Your task to perform on an android device: Open Maps and search for coffee Image 0: 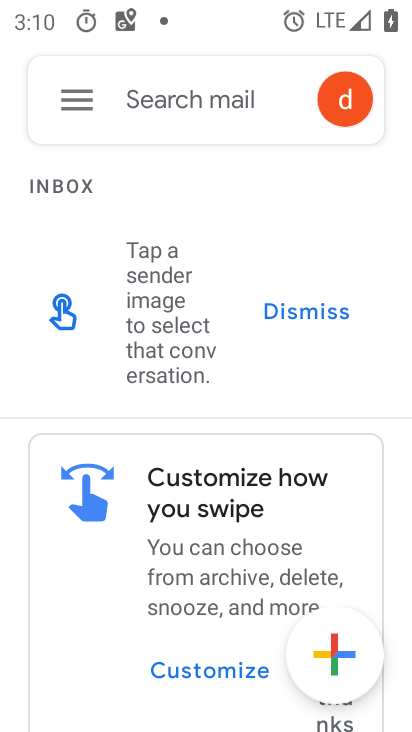
Step 0: press home button
Your task to perform on an android device: Open Maps and search for coffee Image 1: 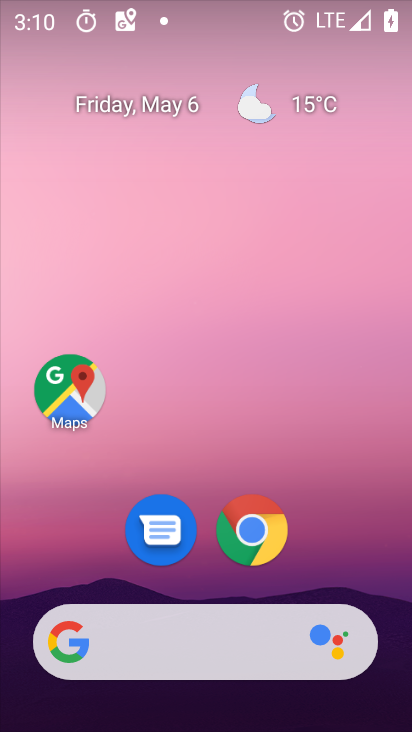
Step 1: click (66, 395)
Your task to perform on an android device: Open Maps and search for coffee Image 2: 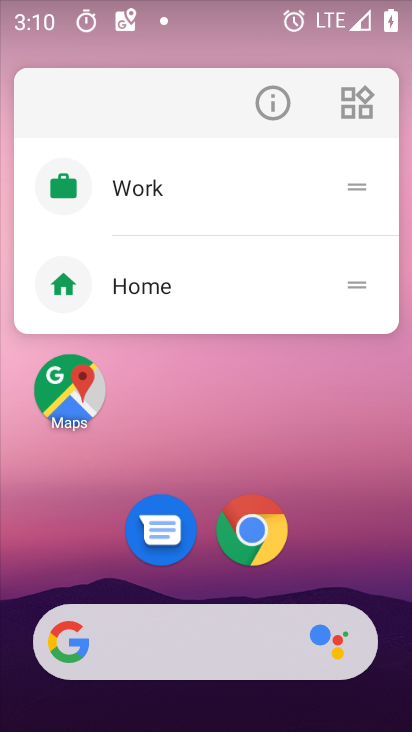
Step 2: click (62, 392)
Your task to perform on an android device: Open Maps and search for coffee Image 3: 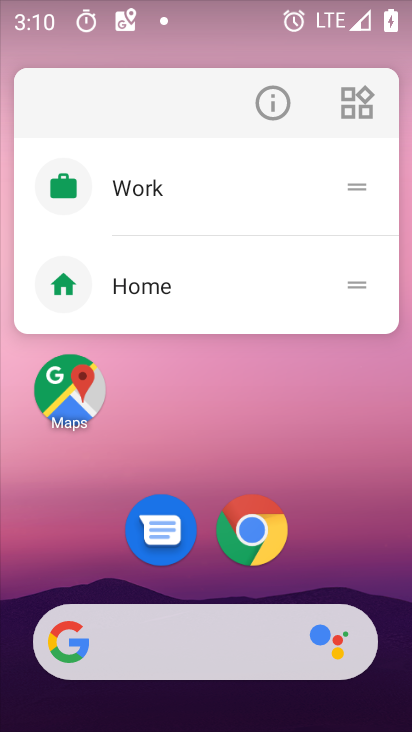
Step 3: click (81, 352)
Your task to perform on an android device: Open Maps and search for coffee Image 4: 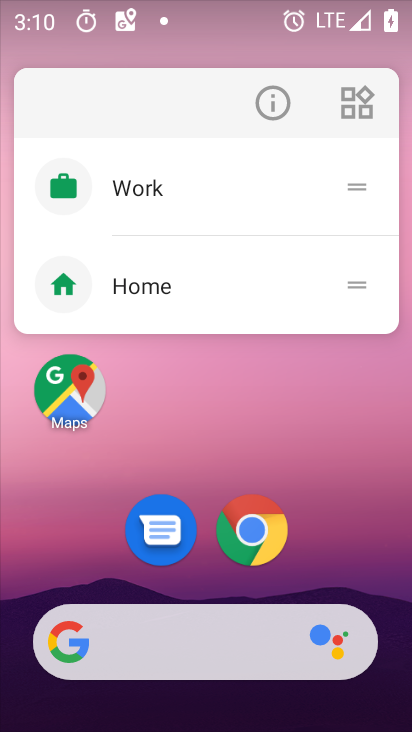
Step 4: click (76, 399)
Your task to perform on an android device: Open Maps and search for coffee Image 5: 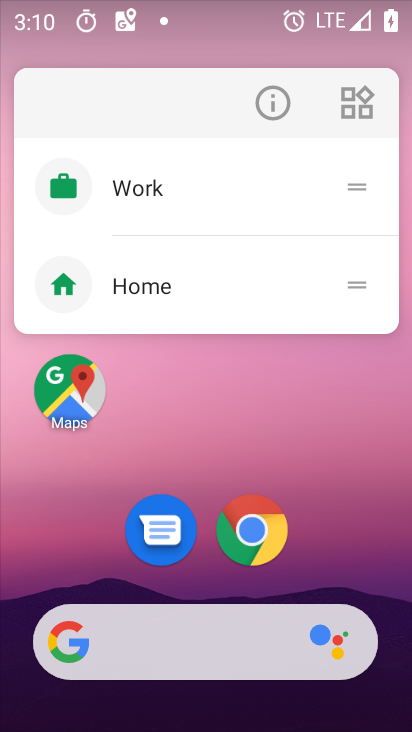
Step 5: click (71, 398)
Your task to perform on an android device: Open Maps and search for coffee Image 6: 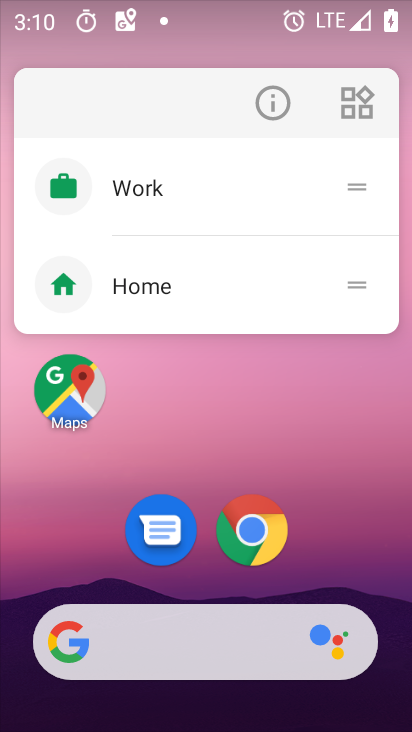
Step 6: click (65, 401)
Your task to perform on an android device: Open Maps and search for coffee Image 7: 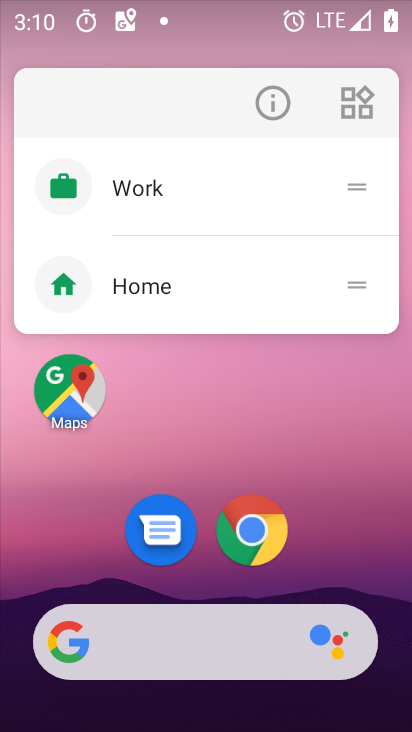
Step 7: click (64, 400)
Your task to perform on an android device: Open Maps and search for coffee Image 8: 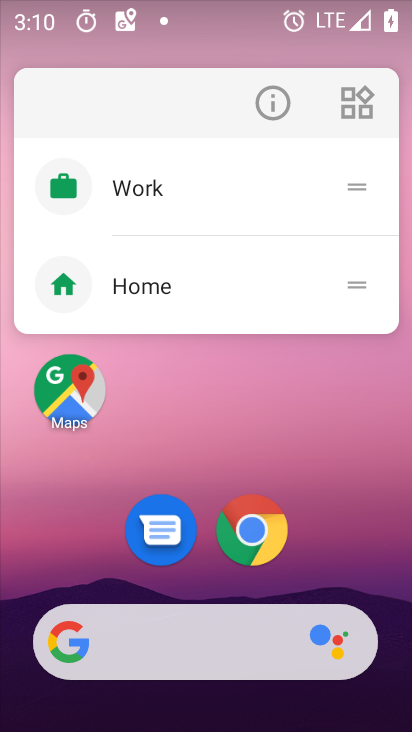
Step 8: click (64, 396)
Your task to perform on an android device: Open Maps and search for coffee Image 9: 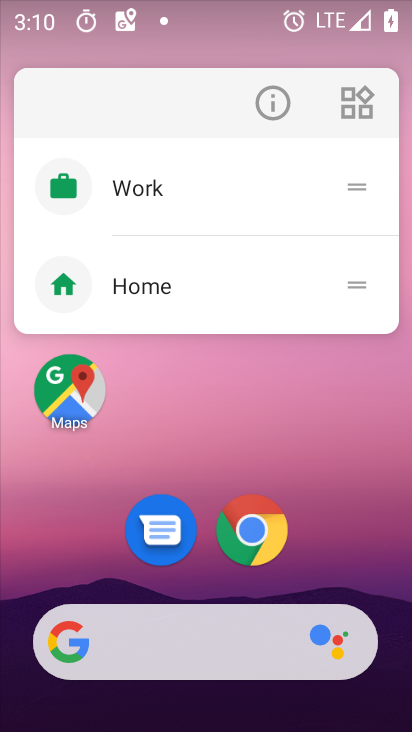
Step 9: click (63, 398)
Your task to perform on an android device: Open Maps and search for coffee Image 10: 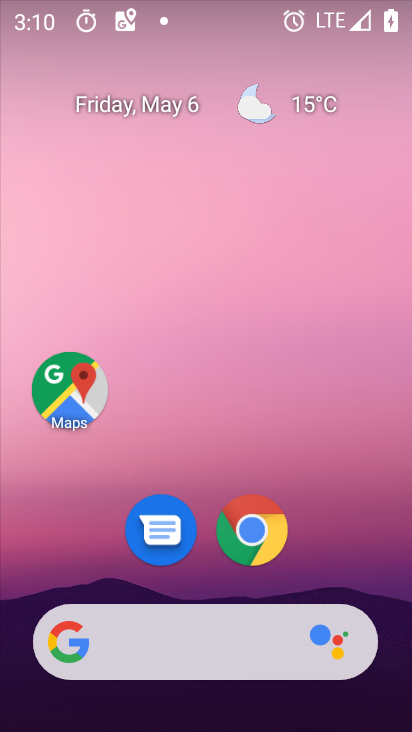
Step 10: click (62, 399)
Your task to perform on an android device: Open Maps and search for coffee Image 11: 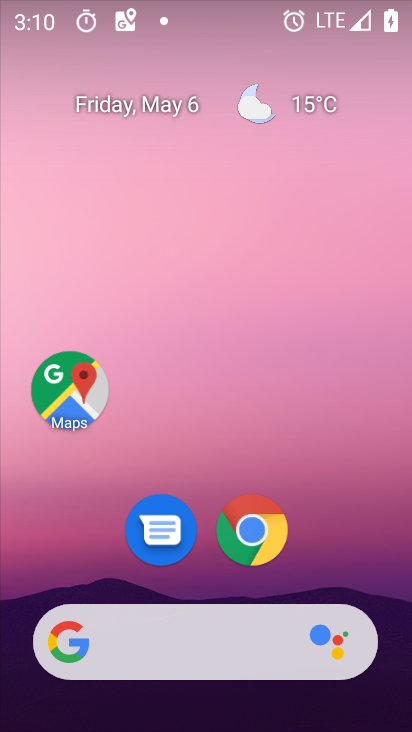
Step 11: click (60, 400)
Your task to perform on an android device: Open Maps and search for coffee Image 12: 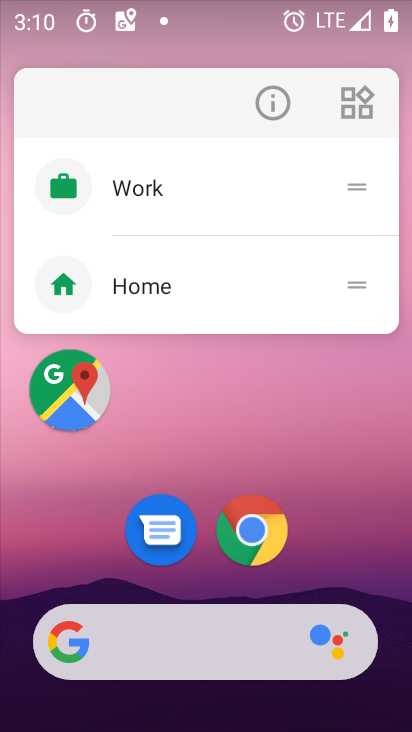
Step 12: click (59, 400)
Your task to perform on an android device: Open Maps and search for coffee Image 13: 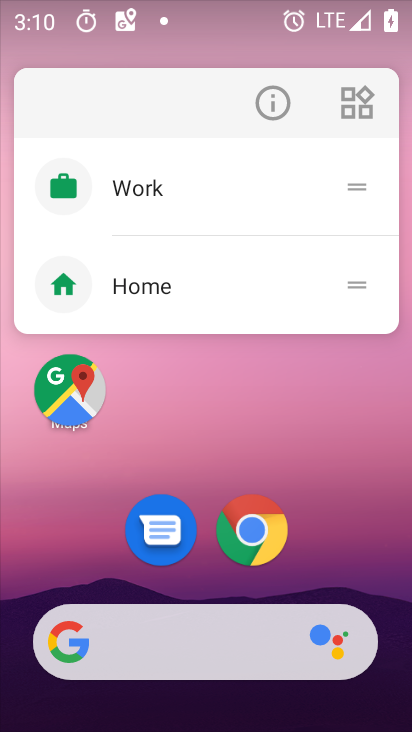
Step 13: click (59, 401)
Your task to perform on an android device: Open Maps and search for coffee Image 14: 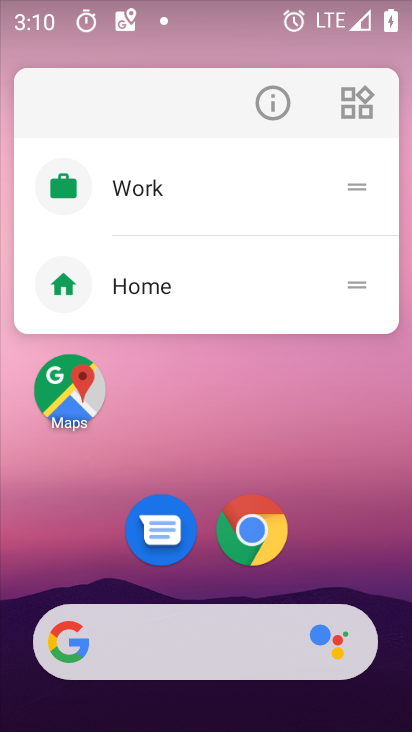
Step 14: click (58, 399)
Your task to perform on an android device: Open Maps and search for coffee Image 15: 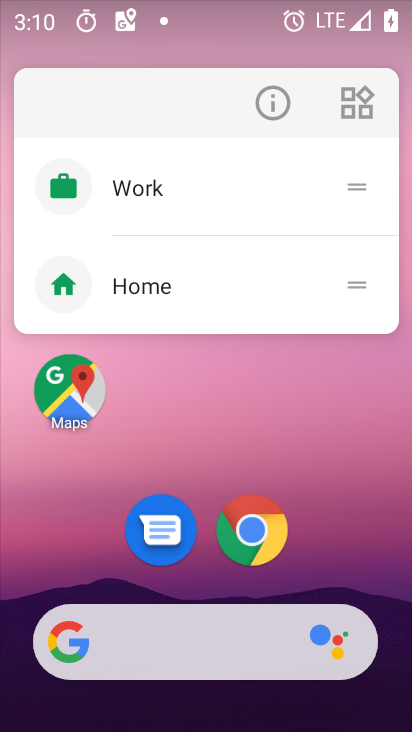
Step 15: click (57, 400)
Your task to perform on an android device: Open Maps and search for coffee Image 16: 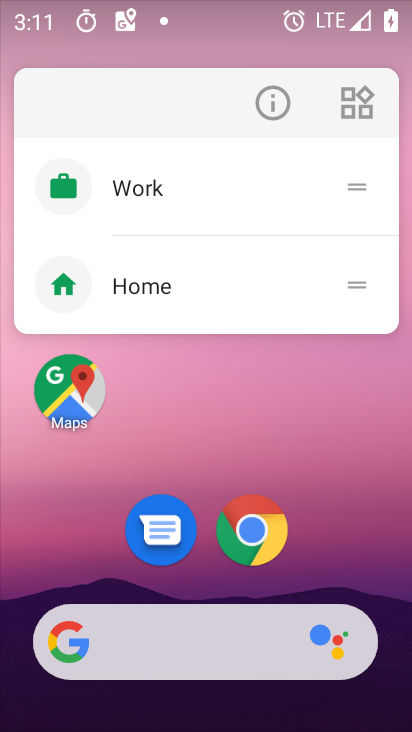
Step 16: click (382, 568)
Your task to perform on an android device: Open Maps and search for coffee Image 17: 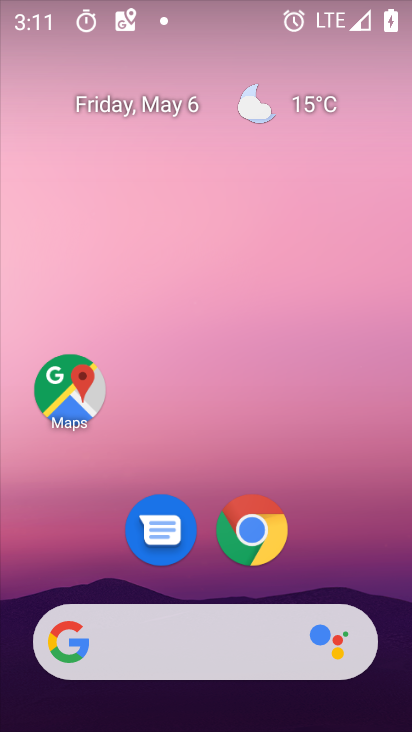
Step 17: drag from (347, 580) to (411, 0)
Your task to perform on an android device: Open Maps and search for coffee Image 18: 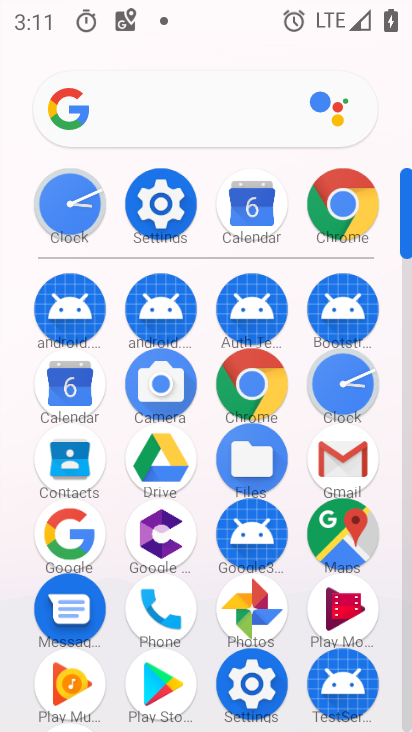
Step 18: click (357, 544)
Your task to perform on an android device: Open Maps and search for coffee Image 19: 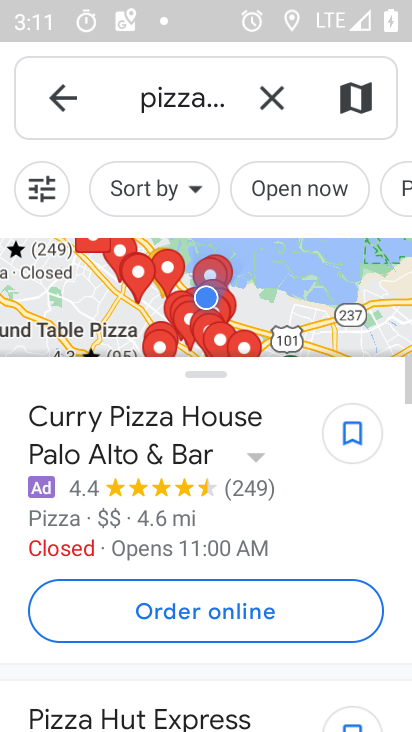
Step 19: click (273, 101)
Your task to perform on an android device: Open Maps and search for coffee Image 20: 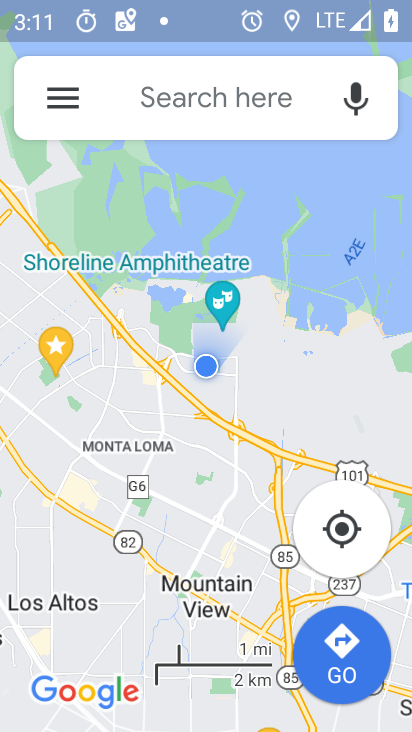
Step 20: click (242, 77)
Your task to perform on an android device: Open Maps and search for coffee Image 21: 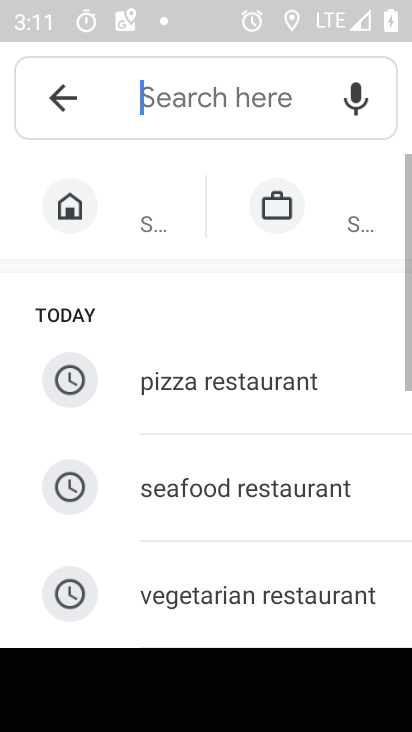
Step 21: click (239, 98)
Your task to perform on an android device: Open Maps and search for coffee Image 22: 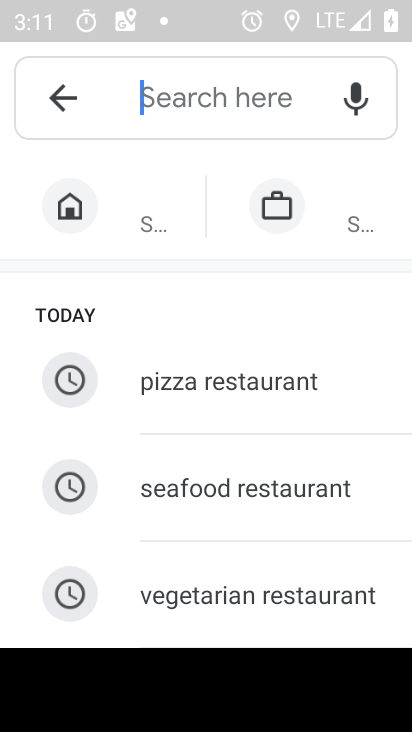
Step 22: drag from (387, 543) to (408, 395)
Your task to perform on an android device: Open Maps and search for coffee Image 23: 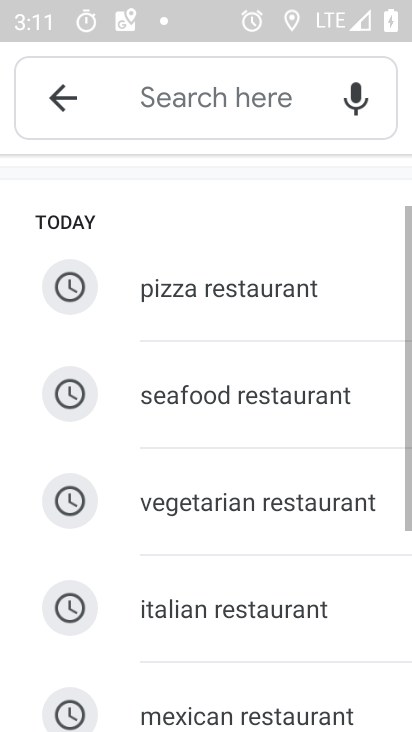
Step 23: drag from (287, 668) to (381, 204)
Your task to perform on an android device: Open Maps and search for coffee Image 24: 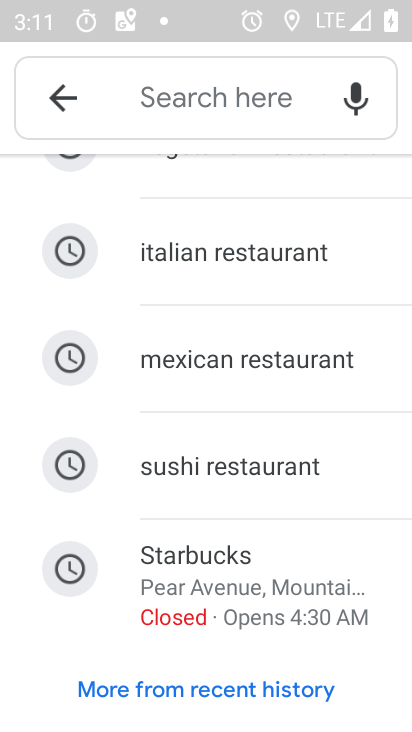
Step 24: drag from (271, 640) to (345, 150)
Your task to perform on an android device: Open Maps and search for coffee Image 25: 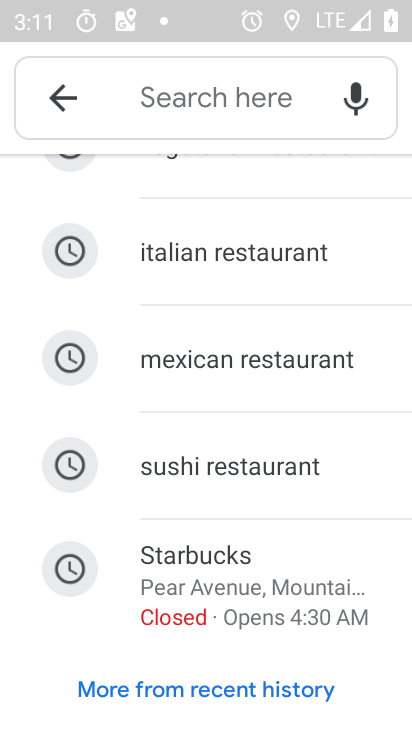
Step 25: click (156, 96)
Your task to perform on an android device: Open Maps and search for coffee Image 26: 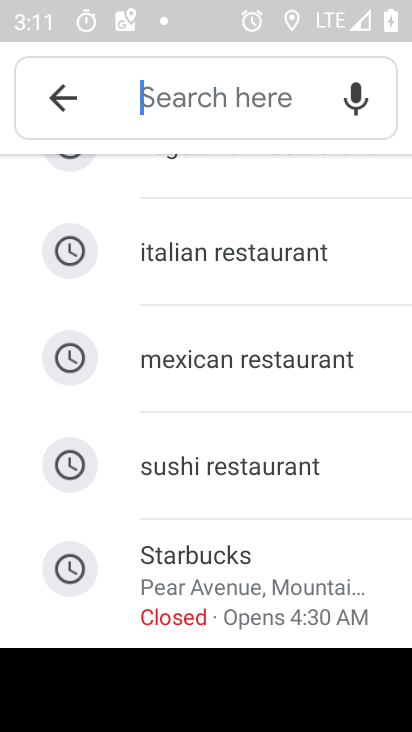
Step 26: type "coffee"
Your task to perform on an android device: Open Maps and search for coffee Image 27: 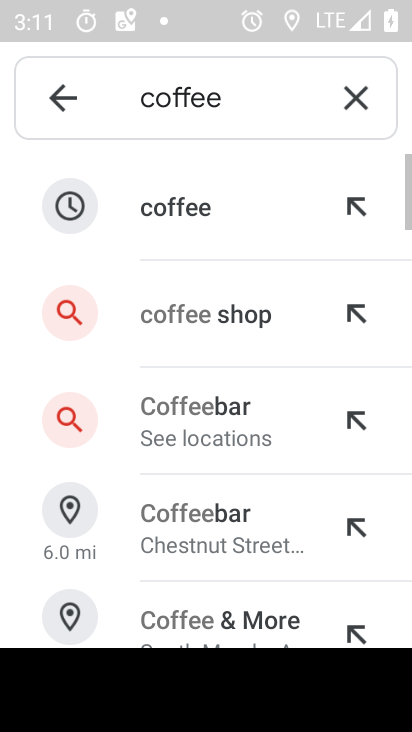
Step 27: click (193, 228)
Your task to perform on an android device: Open Maps and search for coffee Image 28: 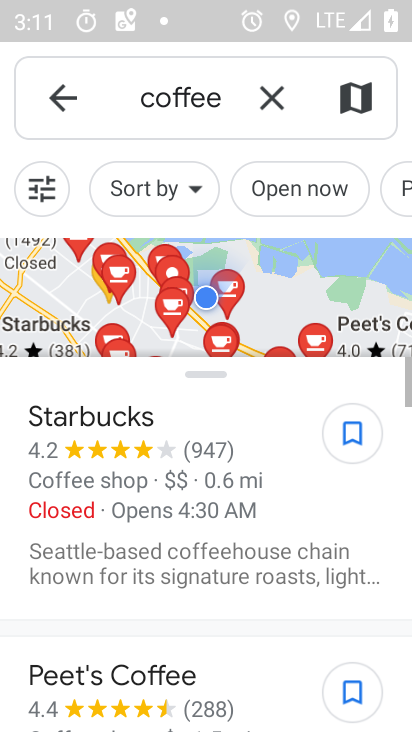
Step 28: task complete